Your task to perform on an android device: Check the news Image 0: 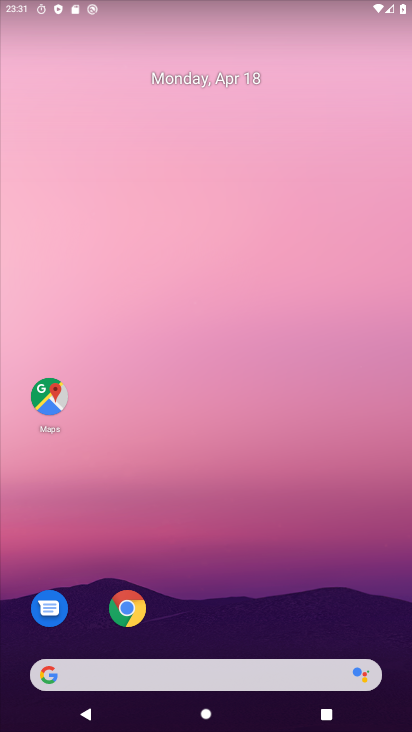
Step 0: drag from (206, 578) to (233, 119)
Your task to perform on an android device: Check the news Image 1: 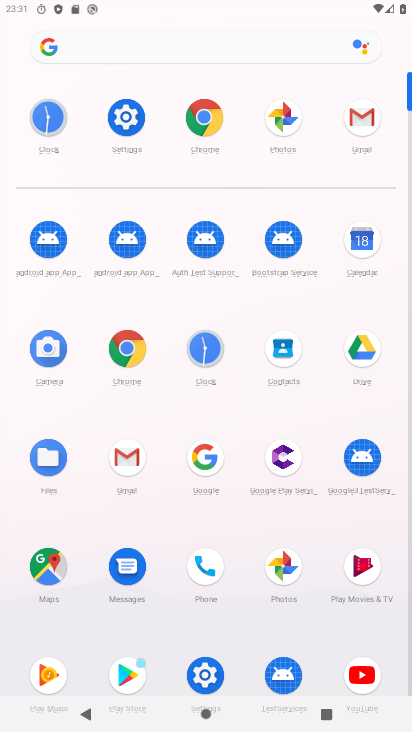
Step 1: click (206, 460)
Your task to perform on an android device: Check the news Image 2: 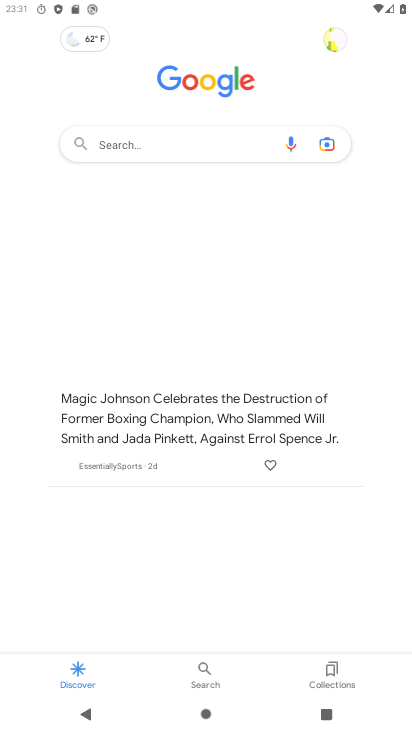
Step 2: click (158, 147)
Your task to perform on an android device: Check the news Image 3: 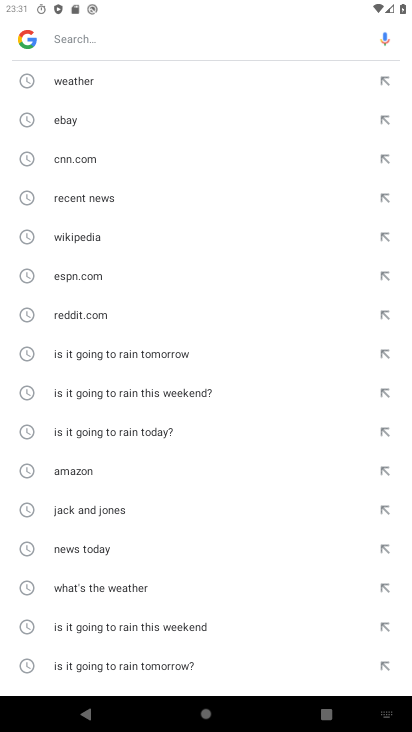
Step 3: type "news"
Your task to perform on an android device: Check the news Image 4: 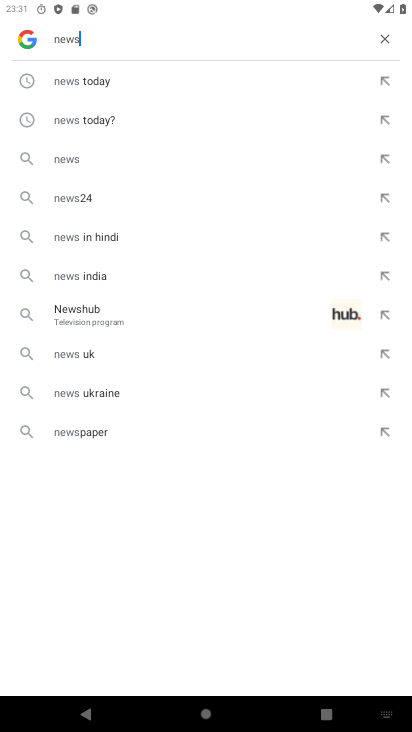
Step 4: click (91, 161)
Your task to perform on an android device: Check the news Image 5: 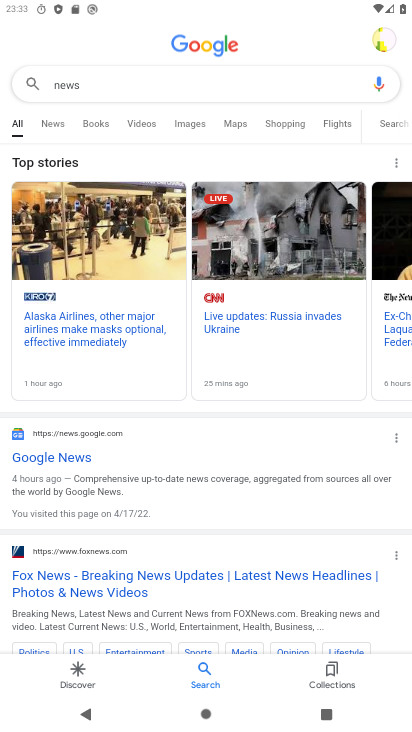
Step 5: task complete